Your task to perform on an android device: Turn on the flashlight Image 0: 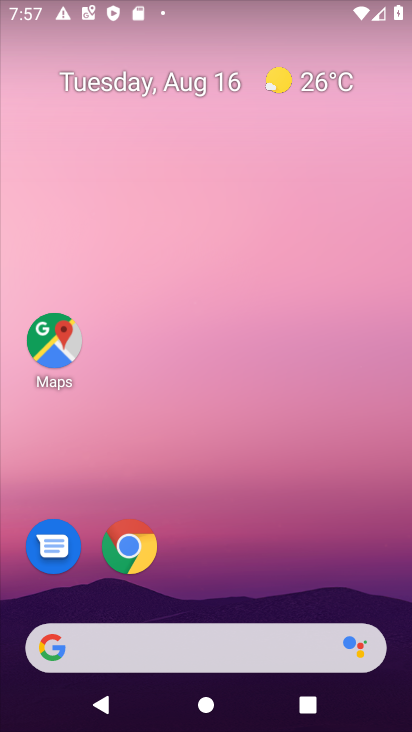
Step 0: drag from (217, 550) to (220, 477)
Your task to perform on an android device: Turn on the flashlight Image 1: 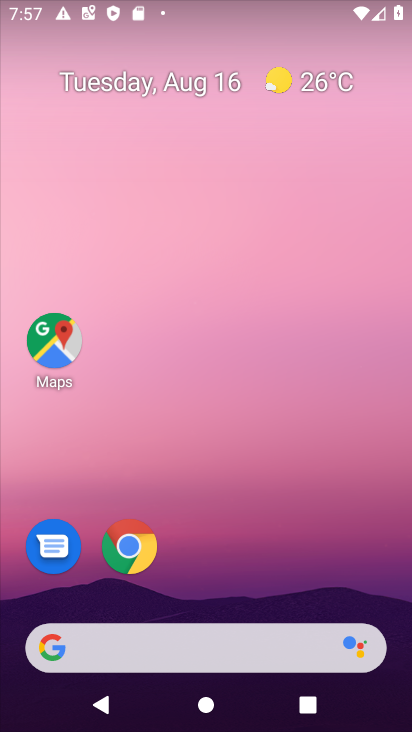
Step 1: drag from (217, 256) to (229, 0)
Your task to perform on an android device: Turn on the flashlight Image 2: 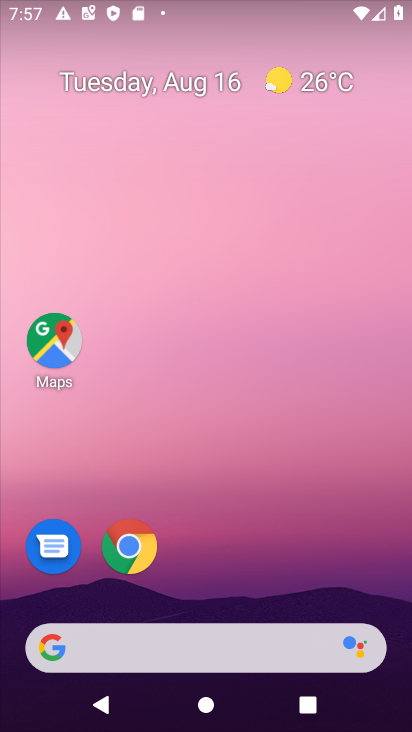
Step 2: drag from (235, 544) to (212, 1)
Your task to perform on an android device: Turn on the flashlight Image 3: 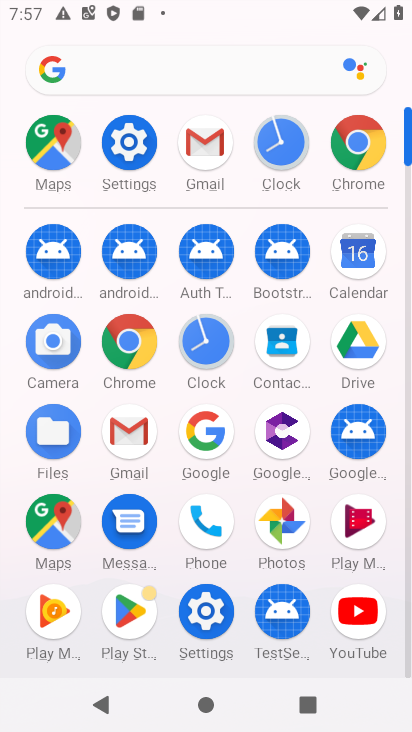
Step 3: click (128, 141)
Your task to perform on an android device: Turn on the flashlight Image 4: 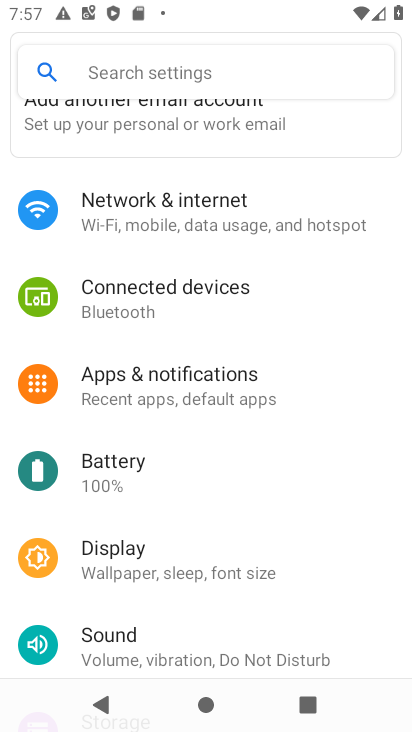
Step 4: click (169, 63)
Your task to perform on an android device: Turn on the flashlight Image 5: 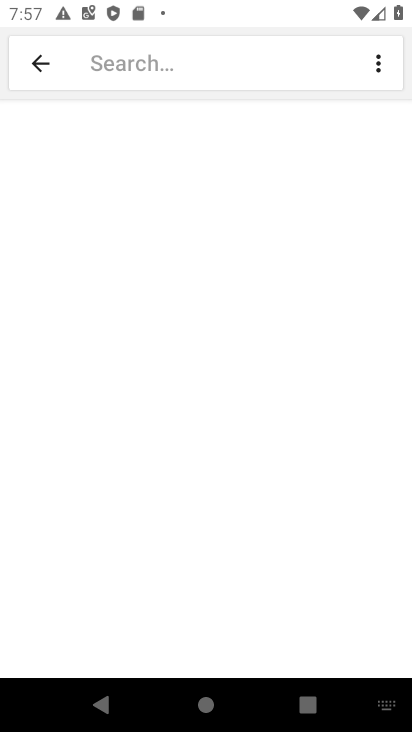
Step 5: type "Flashlight"
Your task to perform on an android device: Turn on the flashlight Image 6: 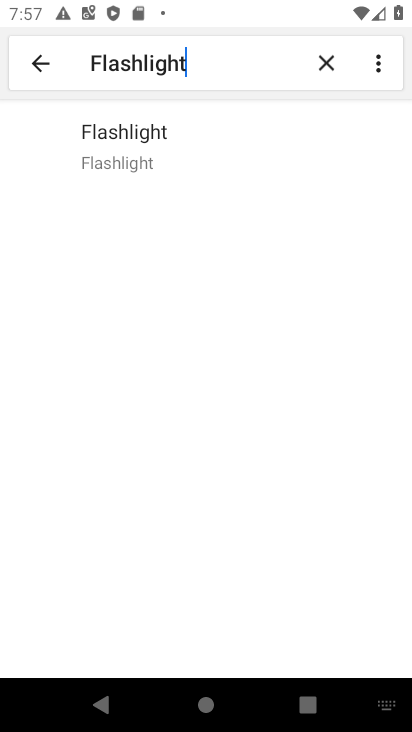
Step 6: click (150, 139)
Your task to perform on an android device: Turn on the flashlight Image 7: 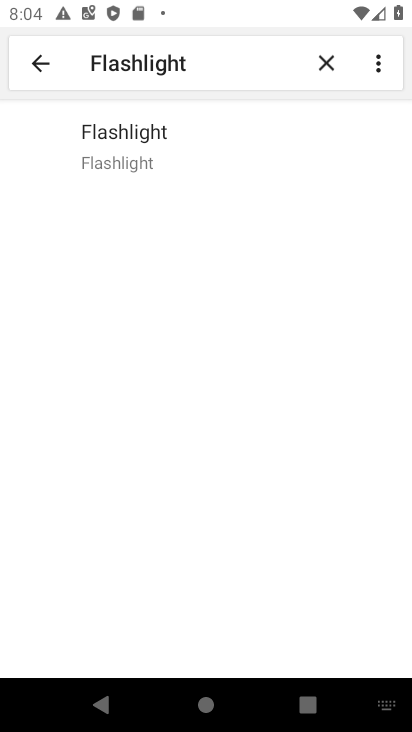
Step 7: task complete